Your task to perform on an android device: Open battery settings Image 0: 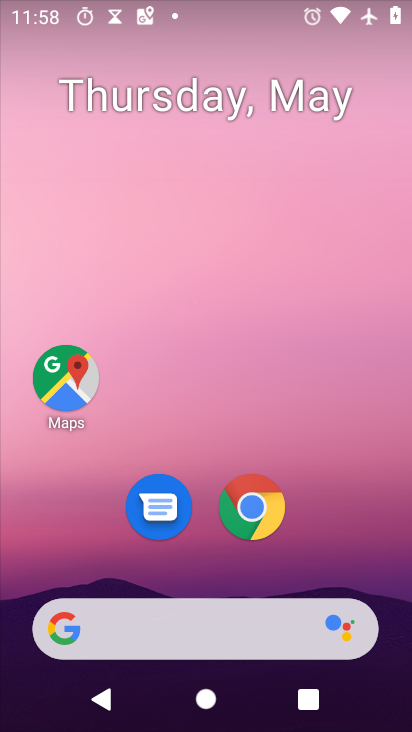
Step 0: drag from (359, 531) to (284, 8)
Your task to perform on an android device: Open battery settings Image 1: 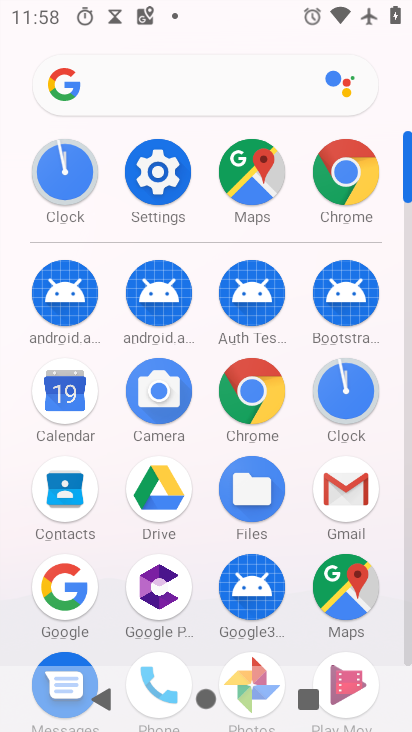
Step 1: drag from (8, 606) to (0, 273)
Your task to perform on an android device: Open battery settings Image 2: 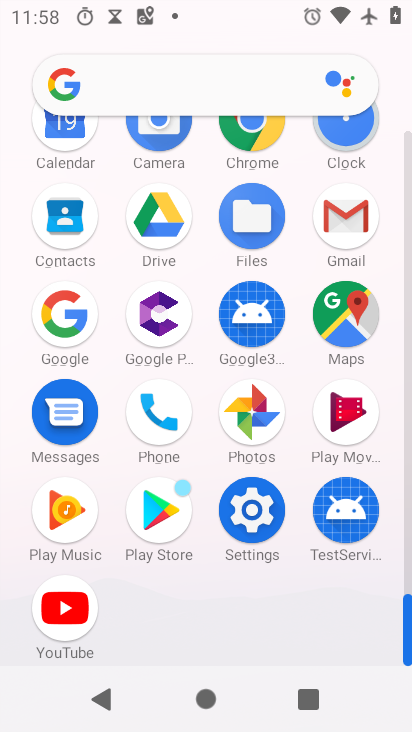
Step 2: click (253, 512)
Your task to perform on an android device: Open battery settings Image 3: 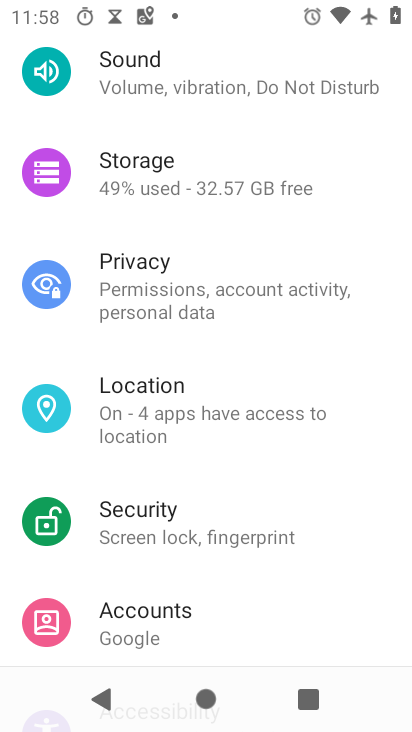
Step 3: drag from (248, 161) to (266, 539)
Your task to perform on an android device: Open battery settings Image 4: 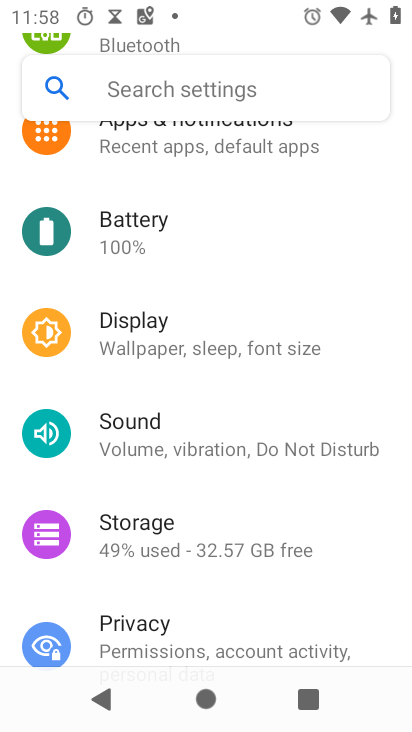
Step 4: click (173, 239)
Your task to perform on an android device: Open battery settings Image 5: 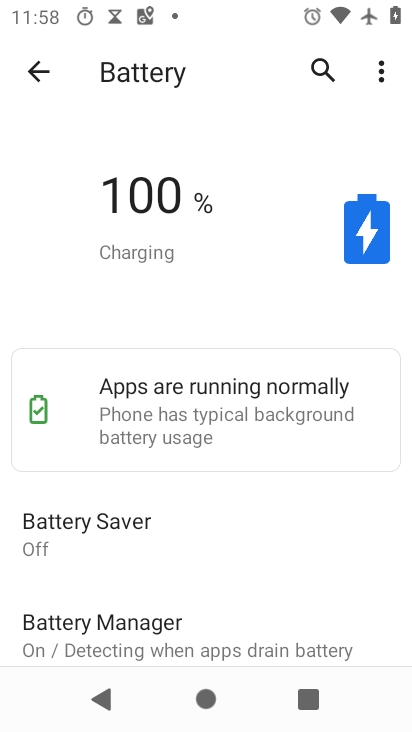
Step 5: task complete